Your task to perform on an android device: Go to Android settings Image 0: 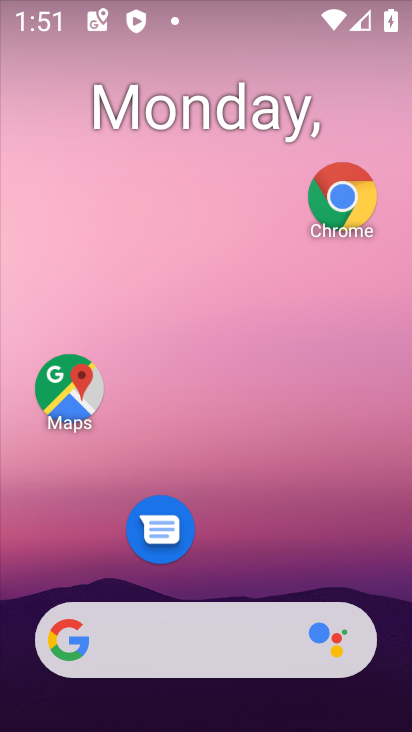
Step 0: drag from (237, 585) to (198, 70)
Your task to perform on an android device: Go to Android settings Image 1: 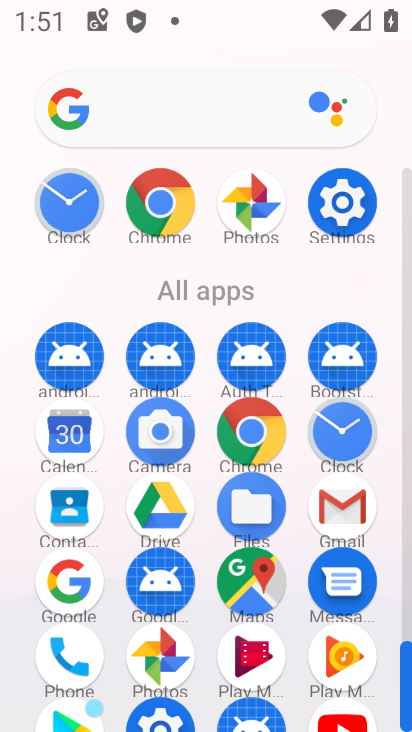
Step 1: click (335, 195)
Your task to perform on an android device: Go to Android settings Image 2: 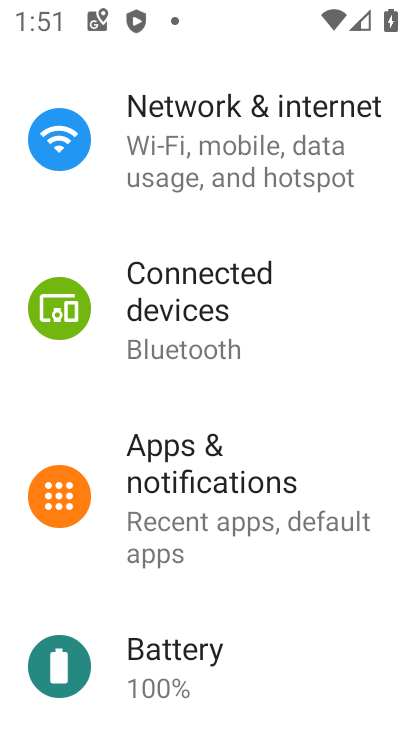
Step 2: task complete